Your task to perform on an android device: check storage Image 0: 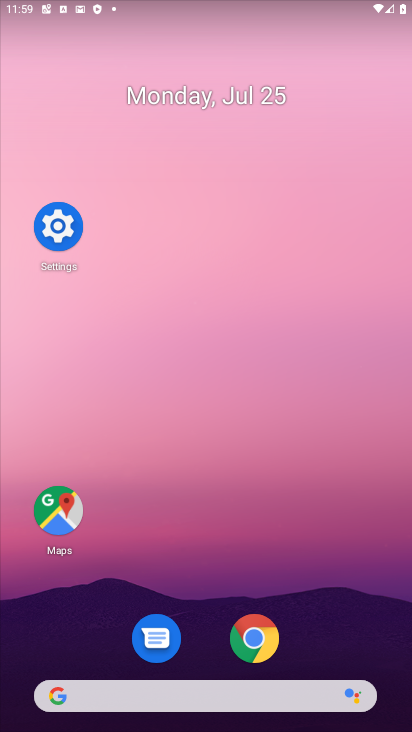
Step 0: click (61, 224)
Your task to perform on an android device: check storage Image 1: 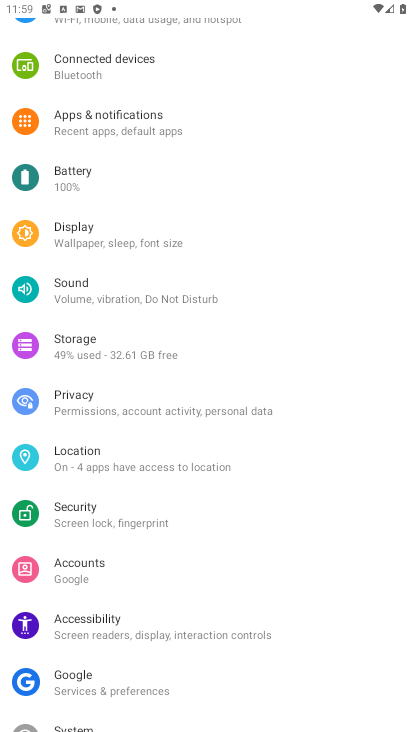
Step 1: click (137, 361)
Your task to perform on an android device: check storage Image 2: 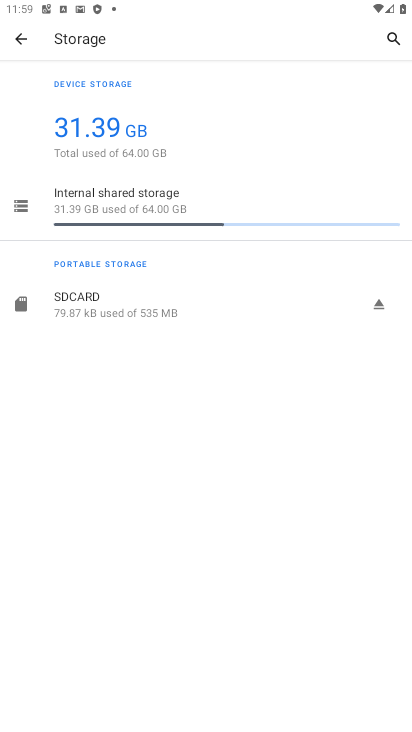
Step 2: task complete